Your task to perform on an android device: Add "beats solo 3" to the cart on costco, then select checkout. Image 0: 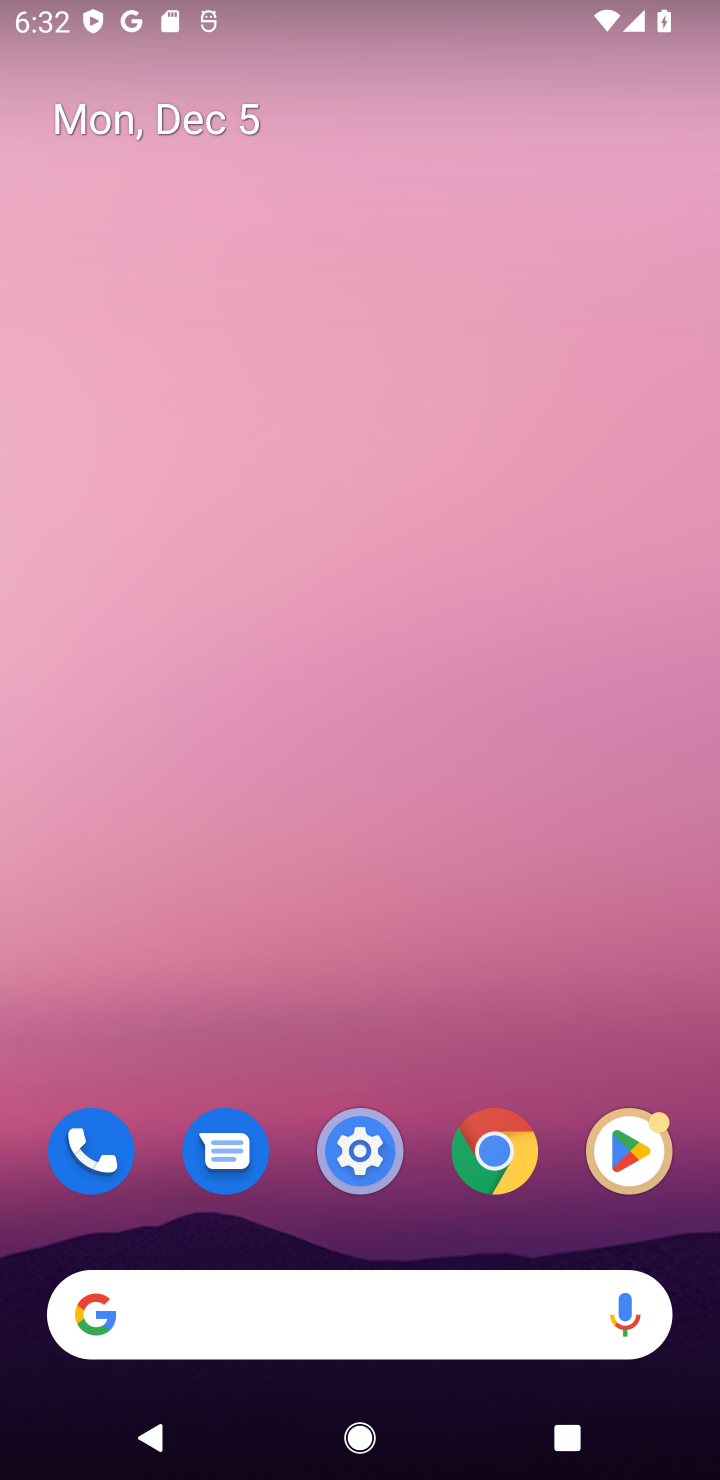
Step 0: click (474, 1286)
Your task to perform on an android device: Add "beats solo 3" to the cart on costco, then select checkout. Image 1: 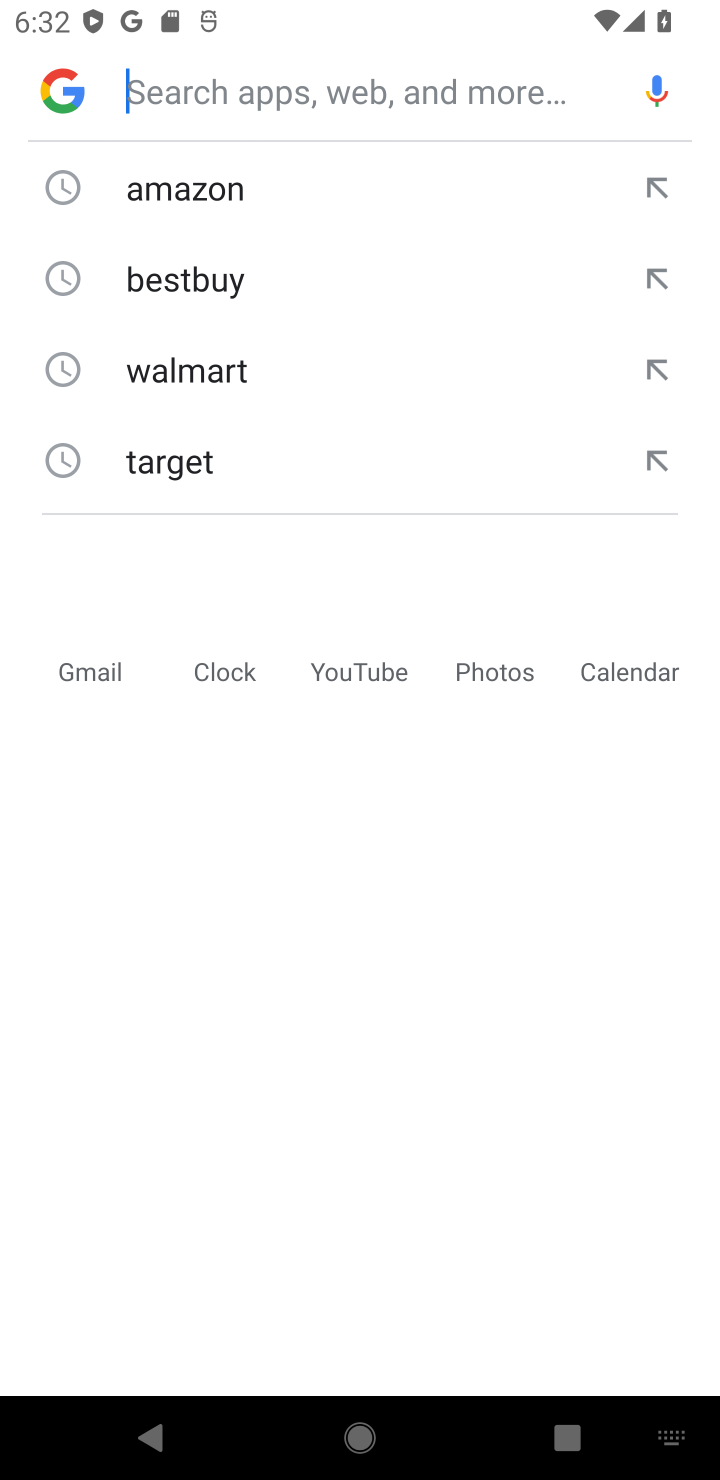
Step 1: type "costco"
Your task to perform on an android device: Add "beats solo 3" to the cart on costco, then select checkout. Image 2: 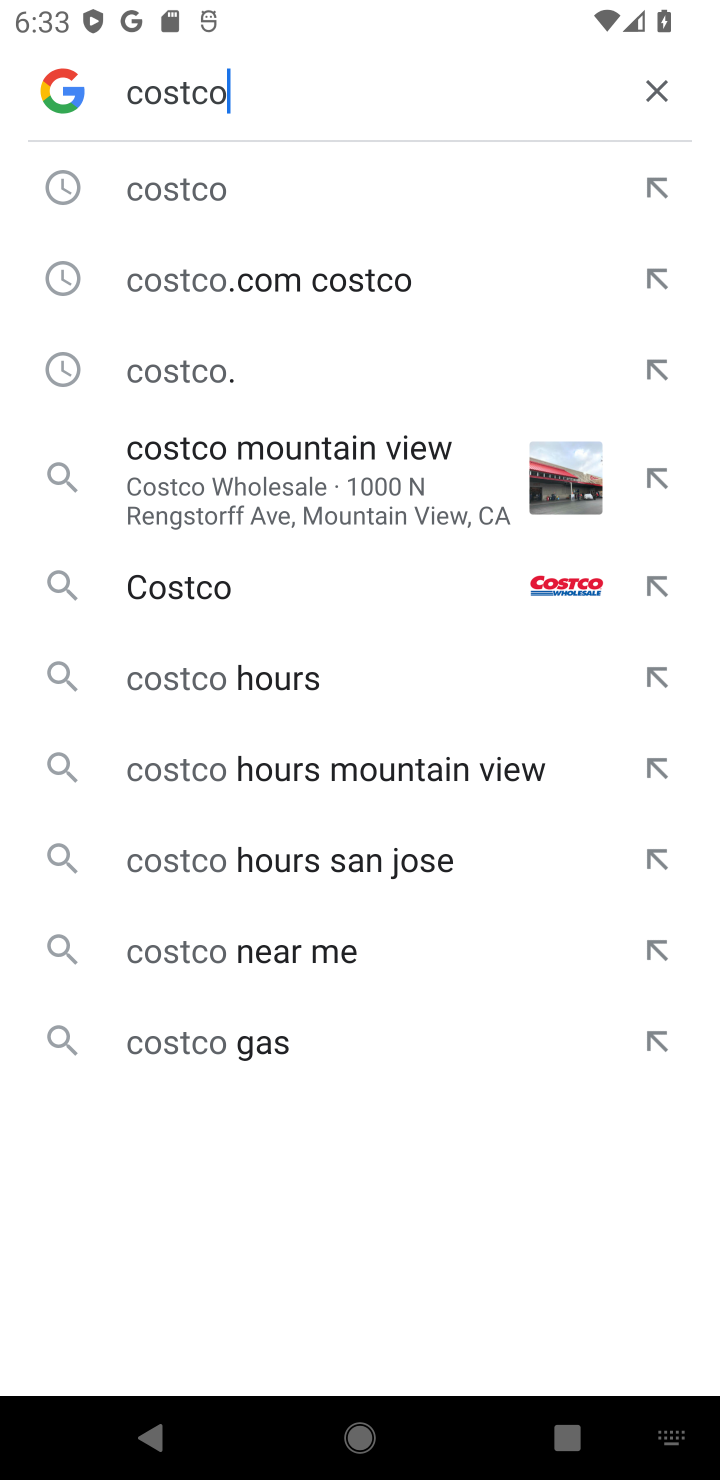
Step 2: click (271, 174)
Your task to perform on an android device: Add "beats solo 3" to the cart on costco, then select checkout. Image 3: 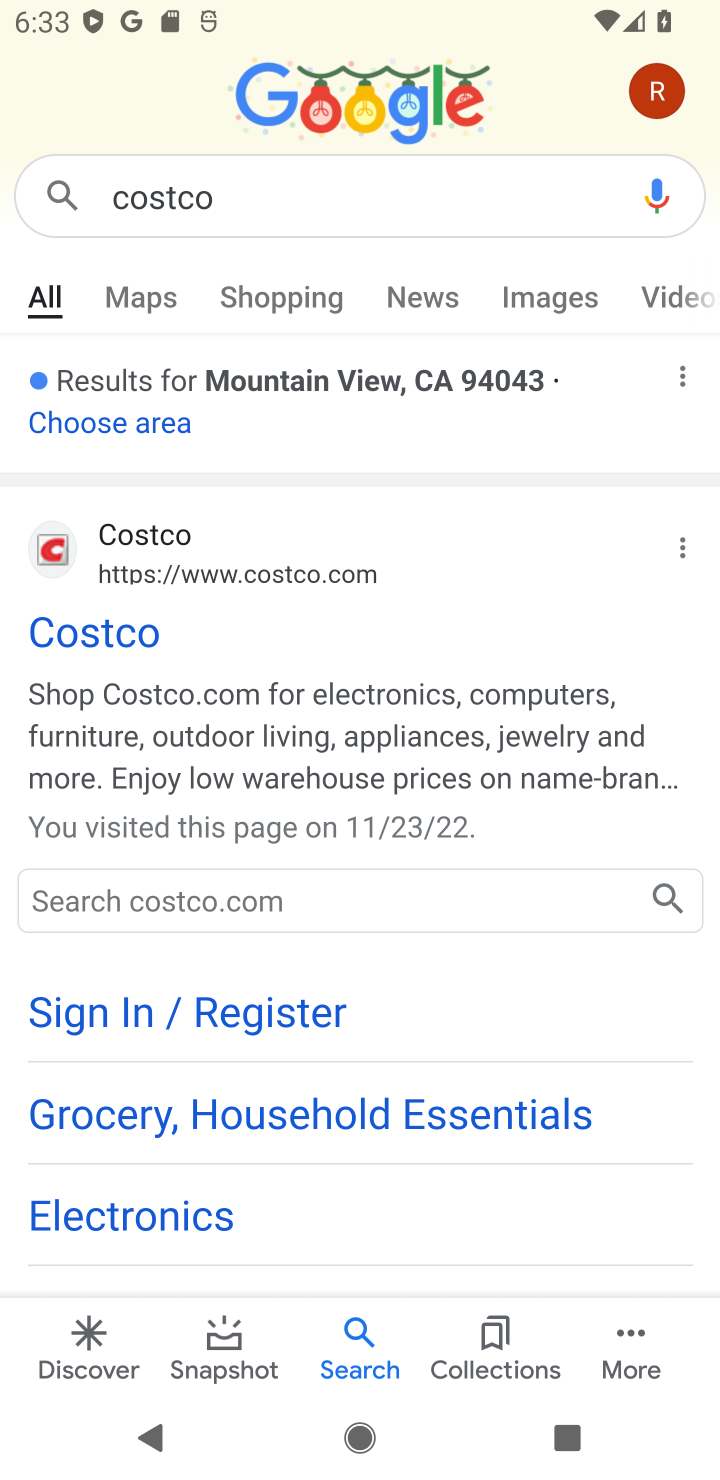
Step 3: click (106, 647)
Your task to perform on an android device: Add "beats solo 3" to the cart on costco, then select checkout. Image 4: 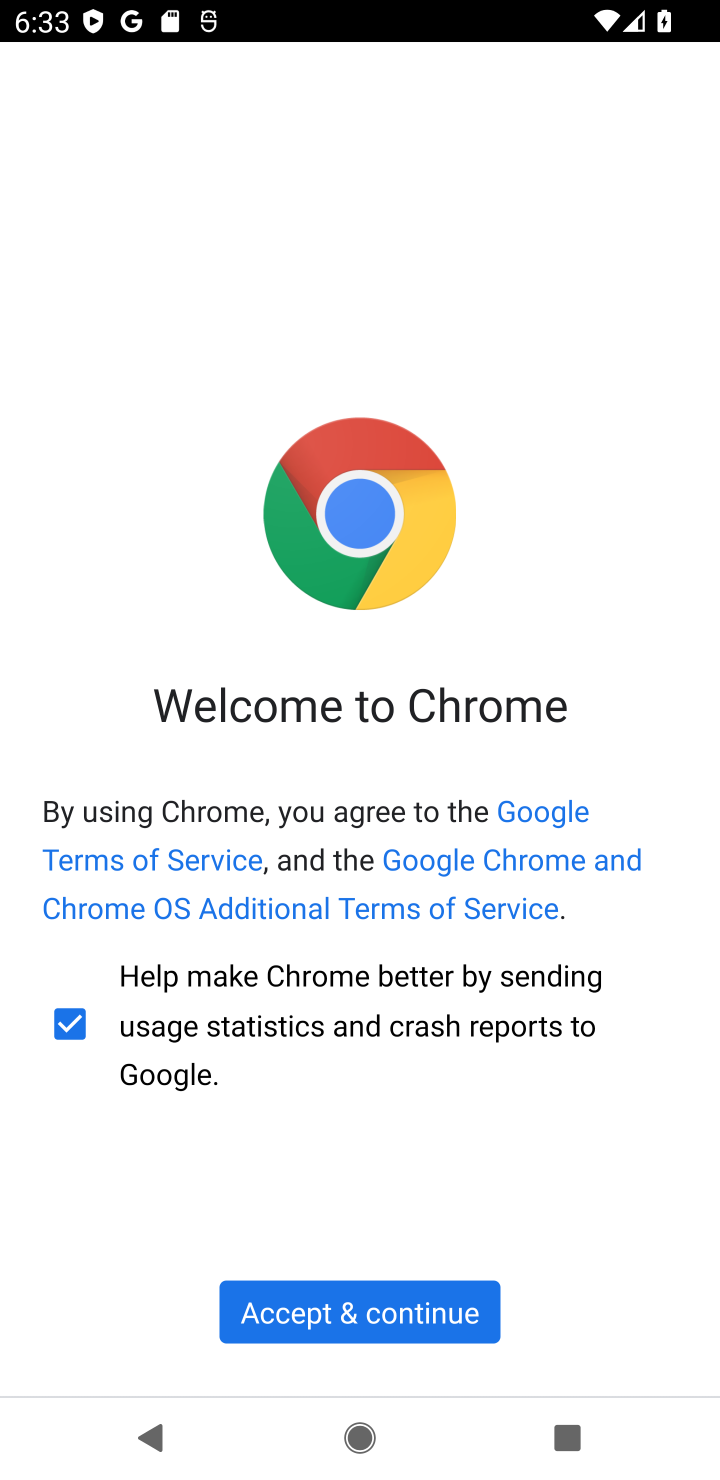
Step 4: click (462, 1291)
Your task to perform on an android device: Add "beats solo 3" to the cart on costco, then select checkout. Image 5: 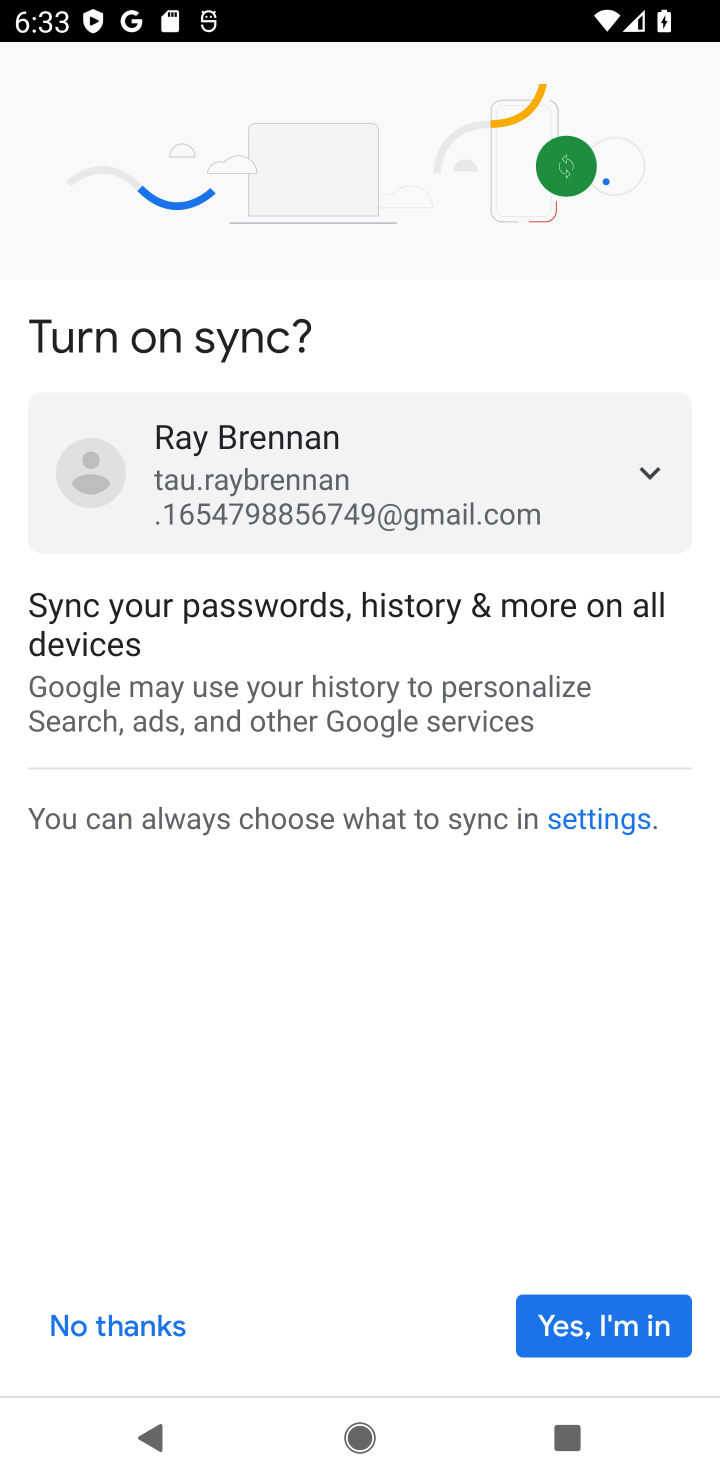
Step 5: click (606, 1341)
Your task to perform on an android device: Add "beats solo 3" to the cart on costco, then select checkout. Image 6: 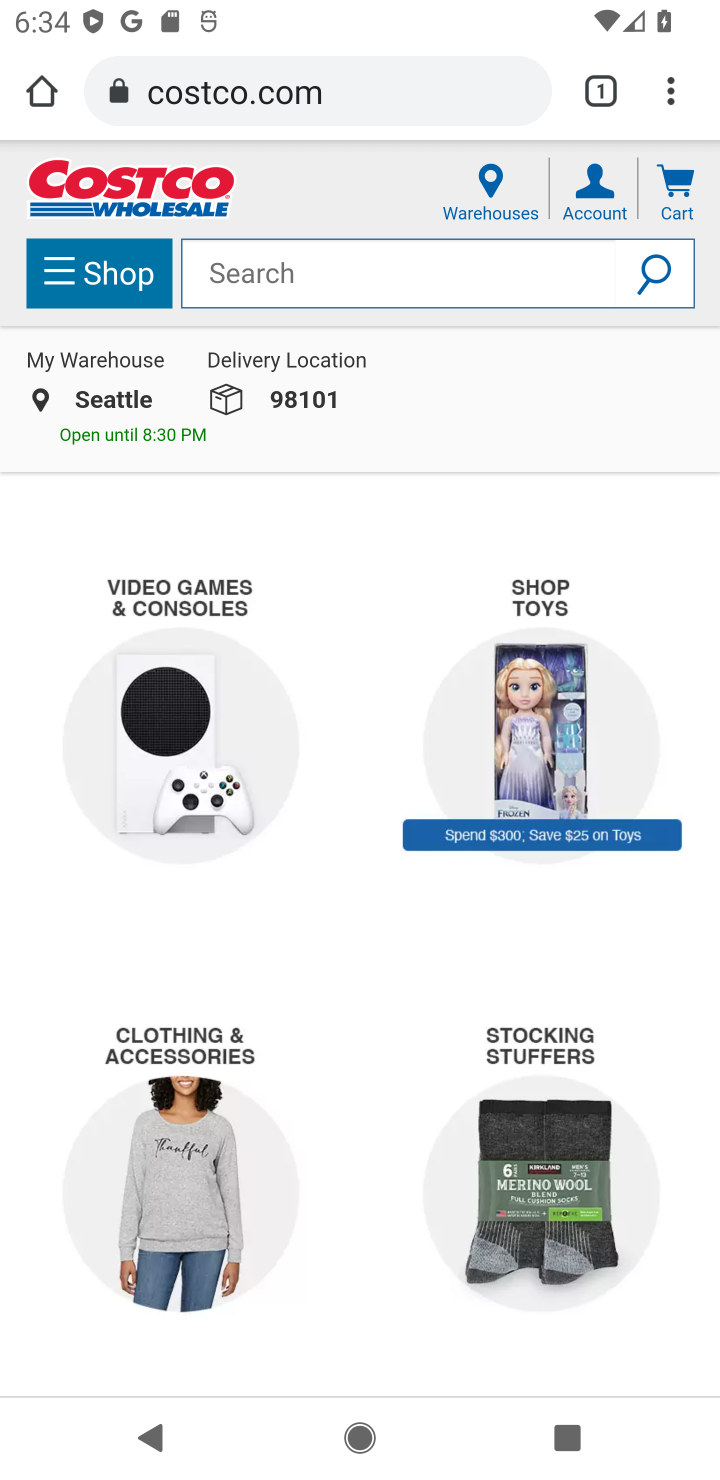
Step 6: task complete